Your task to perform on an android device: Go to accessibility settings Image 0: 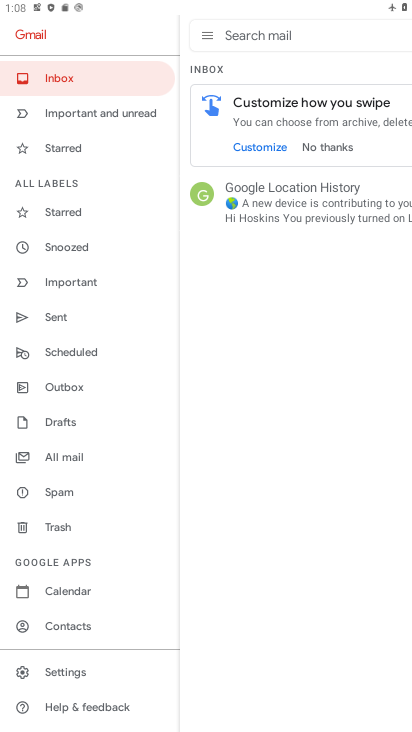
Step 0: press home button
Your task to perform on an android device: Go to accessibility settings Image 1: 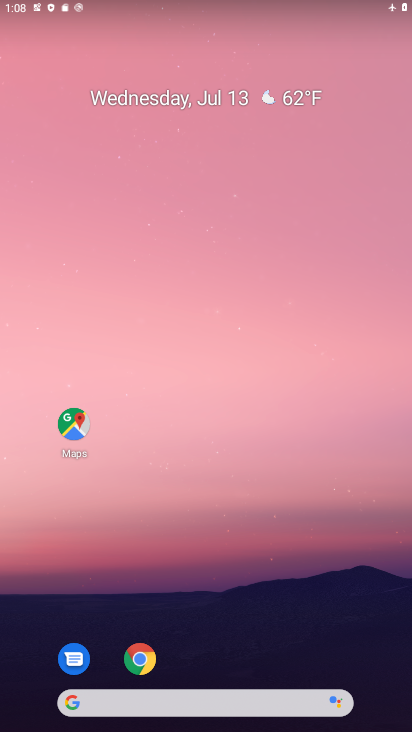
Step 1: drag from (214, 728) to (169, 61)
Your task to perform on an android device: Go to accessibility settings Image 2: 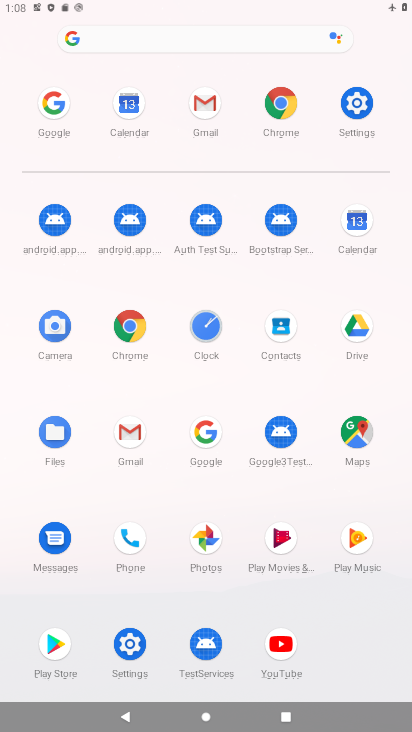
Step 2: click (364, 101)
Your task to perform on an android device: Go to accessibility settings Image 3: 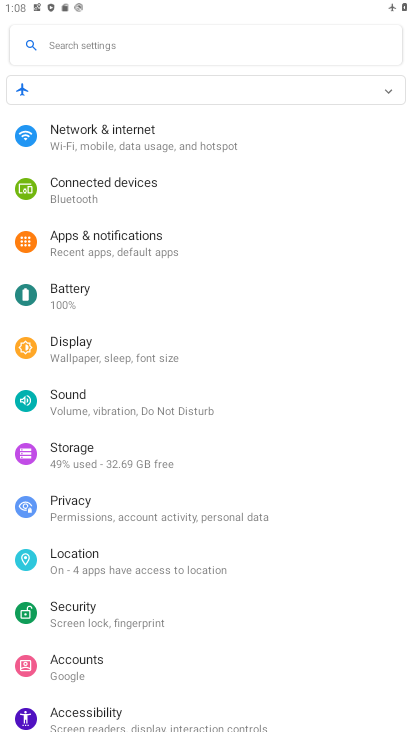
Step 3: click (97, 720)
Your task to perform on an android device: Go to accessibility settings Image 4: 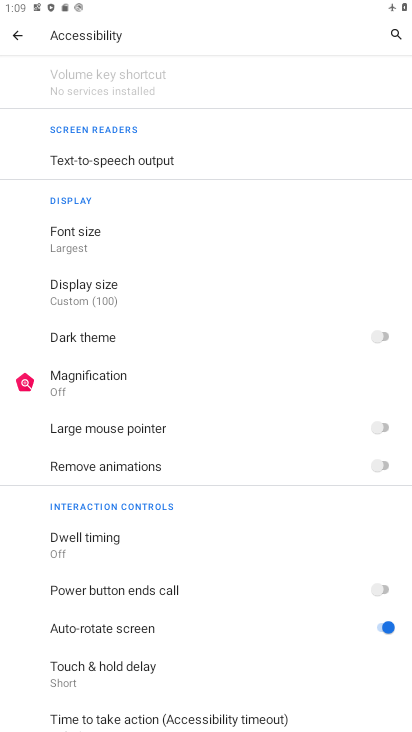
Step 4: task complete